Your task to perform on an android device: toggle location history Image 0: 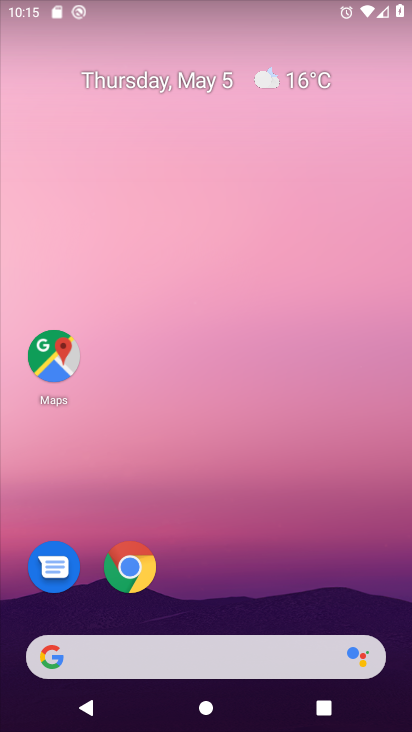
Step 0: drag from (283, 550) to (304, 37)
Your task to perform on an android device: toggle location history Image 1: 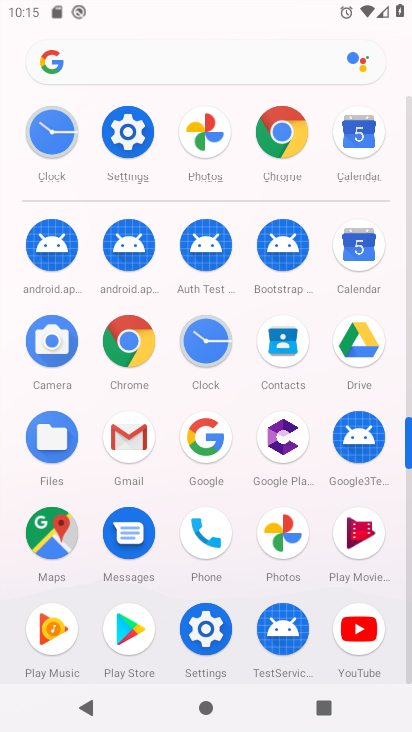
Step 1: click (128, 131)
Your task to perform on an android device: toggle location history Image 2: 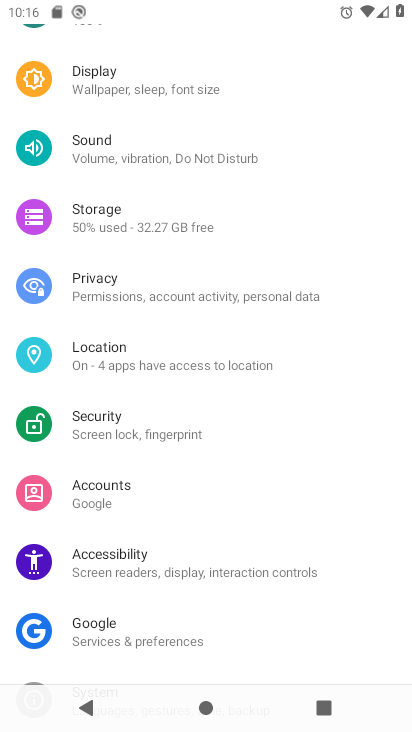
Step 2: drag from (255, 247) to (241, 616)
Your task to perform on an android device: toggle location history Image 3: 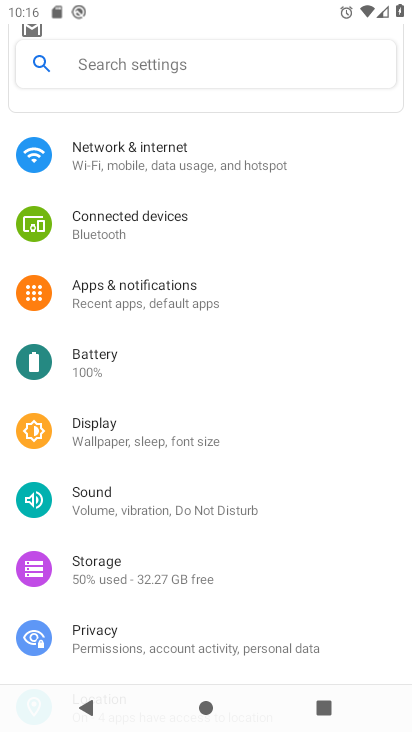
Step 3: click (198, 295)
Your task to perform on an android device: toggle location history Image 4: 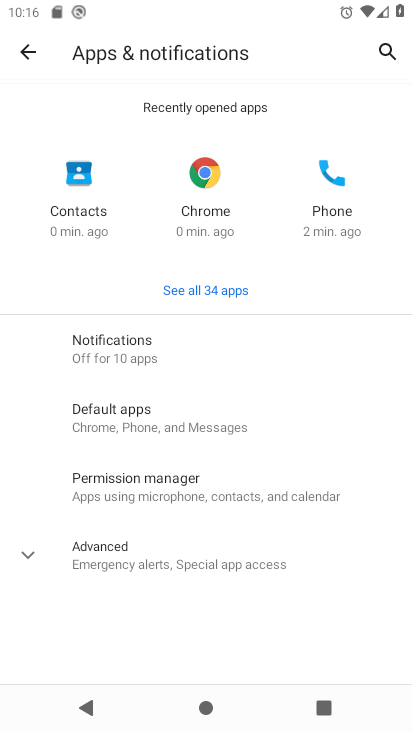
Step 4: press home button
Your task to perform on an android device: toggle location history Image 5: 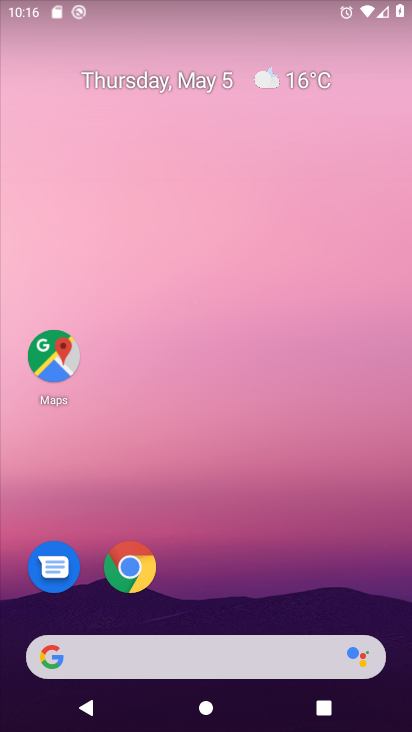
Step 5: drag from (262, 558) to (309, 15)
Your task to perform on an android device: toggle location history Image 6: 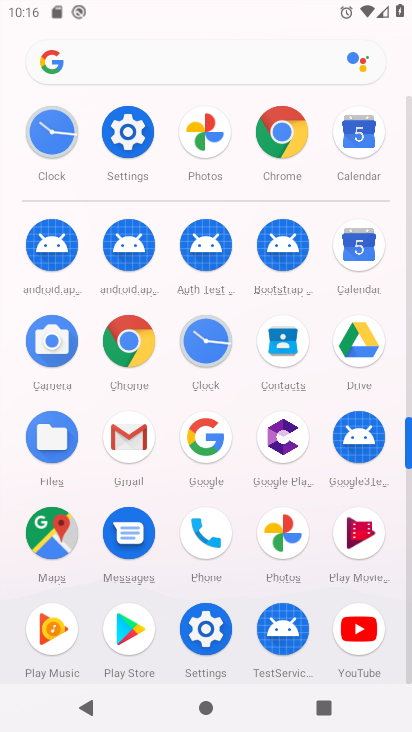
Step 6: click (126, 130)
Your task to perform on an android device: toggle location history Image 7: 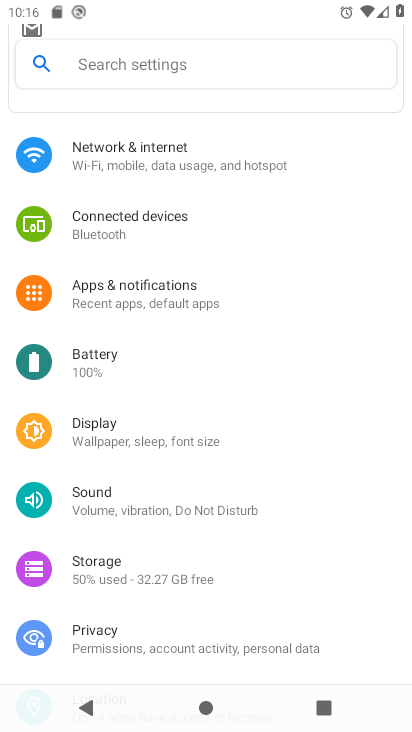
Step 7: drag from (269, 546) to (264, 225)
Your task to perform on an android device: toggle location history Image 8: 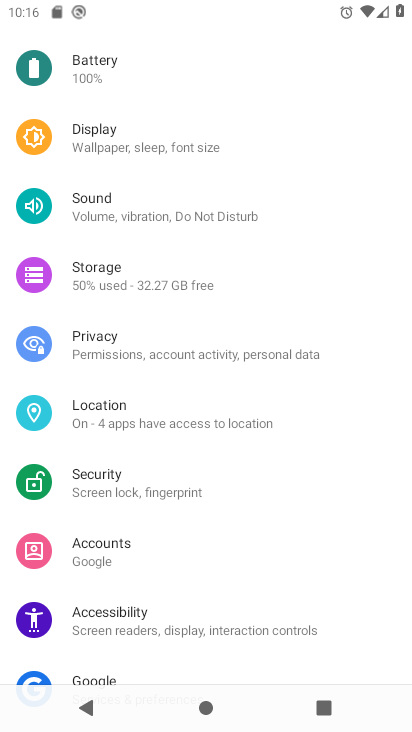
Step 8: click (179, 423)
Your task to perform on an android device: toggle location history Image 9: 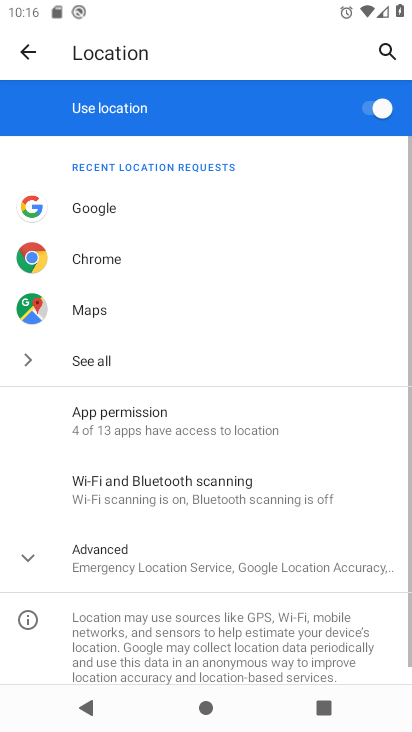
Step 9: click (372, 104)
Your task to perform on an android device: toggle location history Image 10: 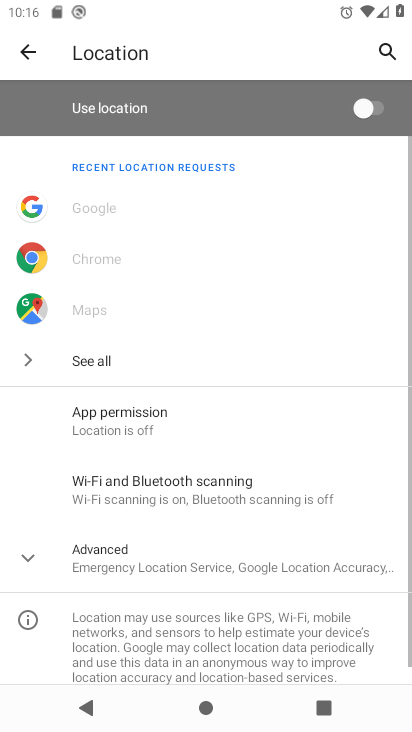
Step 10: task complete